Your task to perform on an android device: see sites visited before in the chrome app Image 0: 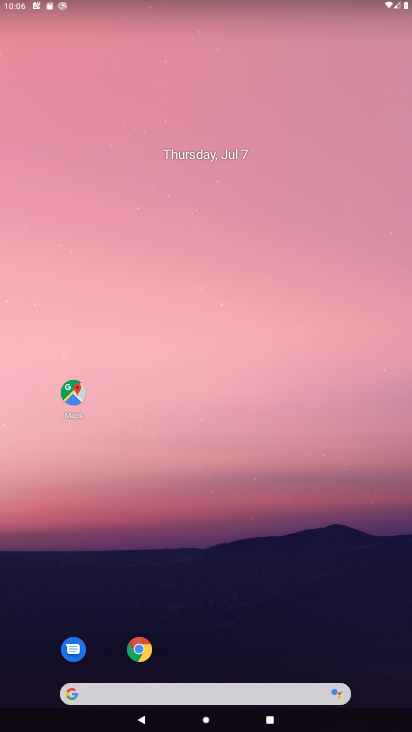
Step 0: click (139, 642)
Your task to perform on an android device: see sites visited before in the chrome app Image 1: 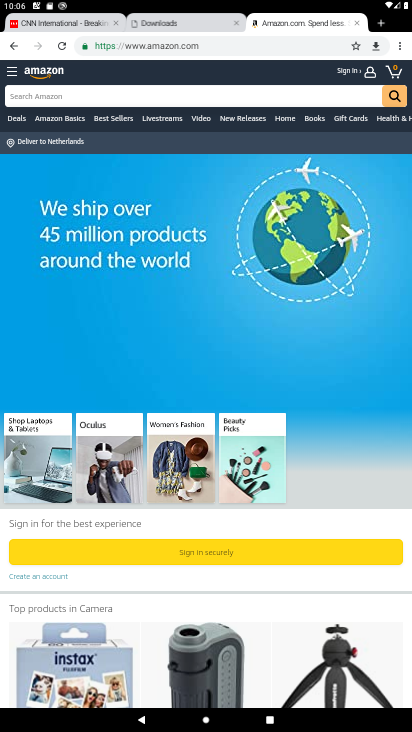
Step 1: click (396, 45)
Your task to perform on an android device: see sites visited before in the chrome app Image 2: 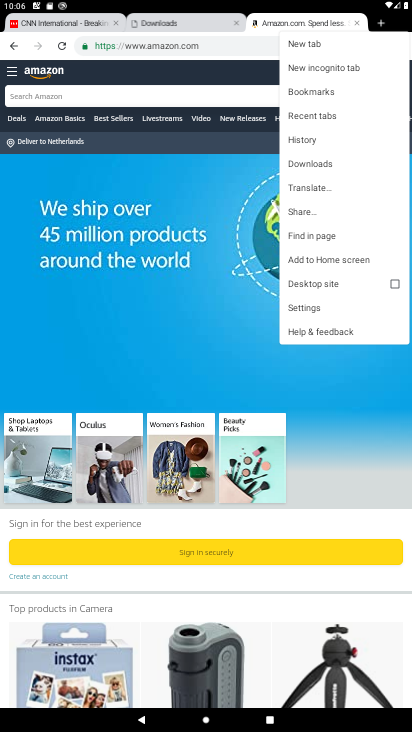
Step 2: click (314, 136)
Your task to perform on an android device: see sites visited before in the chrome app Image 3: 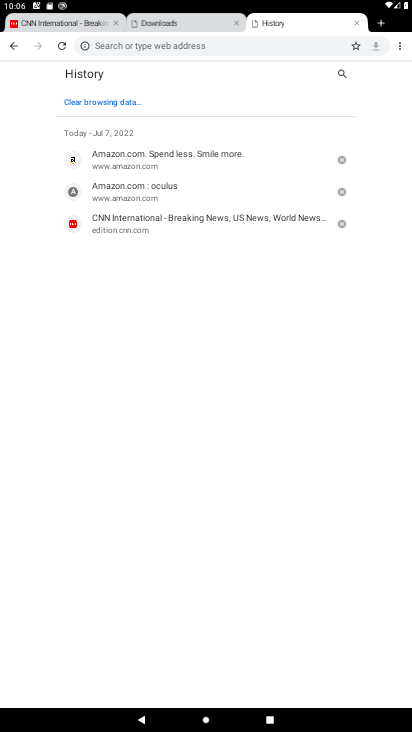
Step 3: task complete